Your task to perform on an android device: What's on my calendar today? Image 0: 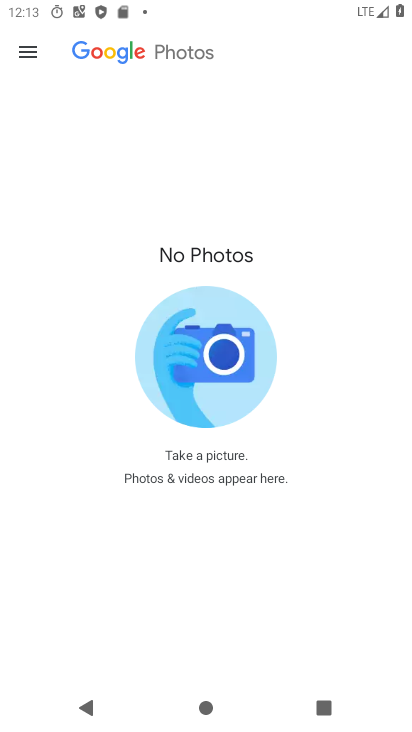
Step 0: press home button
Your task to perform on an android device: What's on my calendar today? Image 1: 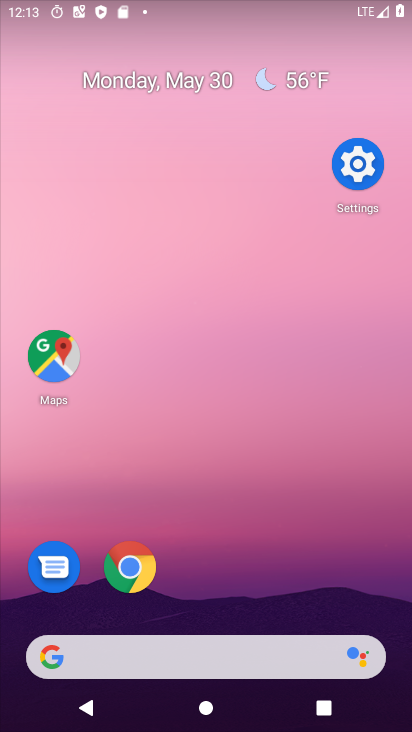
Step 1: drag from (362, 600) to (323, 187)
Your task to perform on an android device: What's on my calendar today? Image 2: 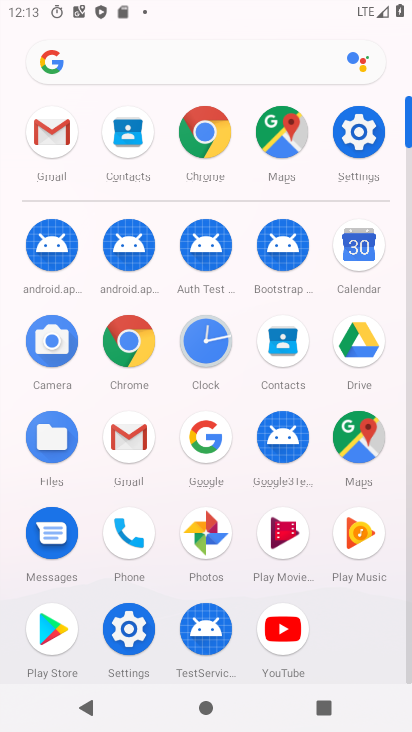
Step 2: click (350, 256)
Your task to perform on an android device: What's on my calendar today? Image 3: 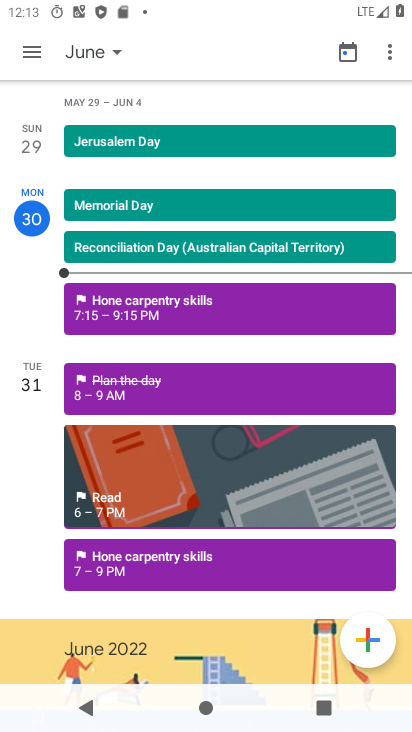
Step 3: click (80, 53)
Your task to perform on an android device: What's on my calendar today? Image 4: 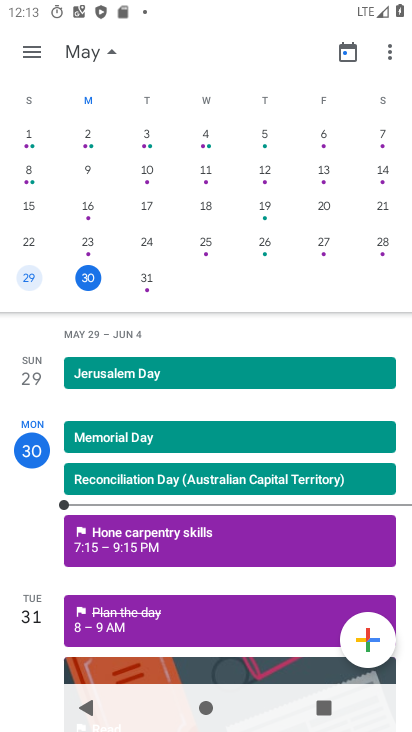
Step 4: click (34, 275)
Your task to perform on an android device: What's on my calendar today? Image 5: 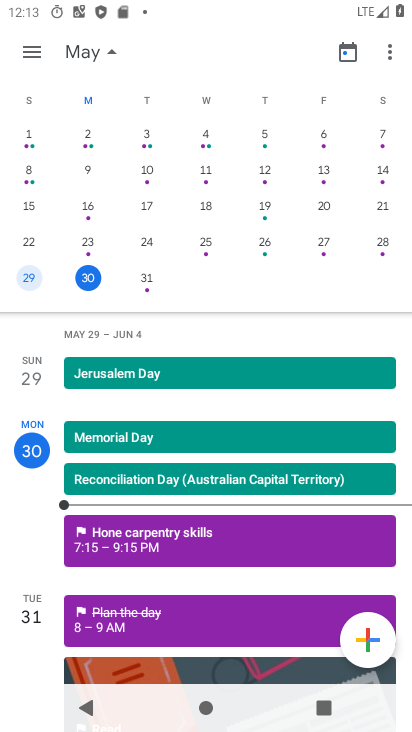
Step 5: click (35, 274)
Your task to perform on an android device: What's on my calendar today? Image 6: 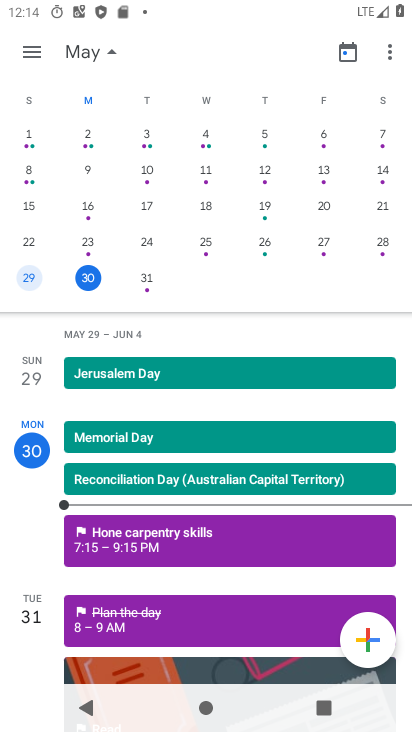
Step 6: click (30, 285)
Your task to perform on an android device: What's on my calendar today? Image 7: 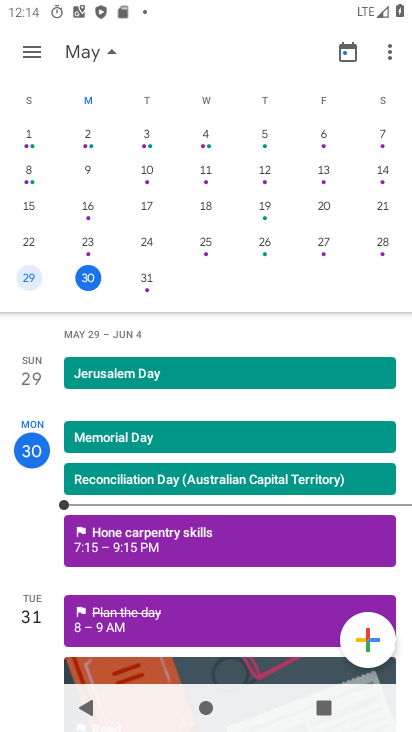
Step 7: click (20, 278)
Your task to perform on an android device: What's on my calendar today? Image 8: 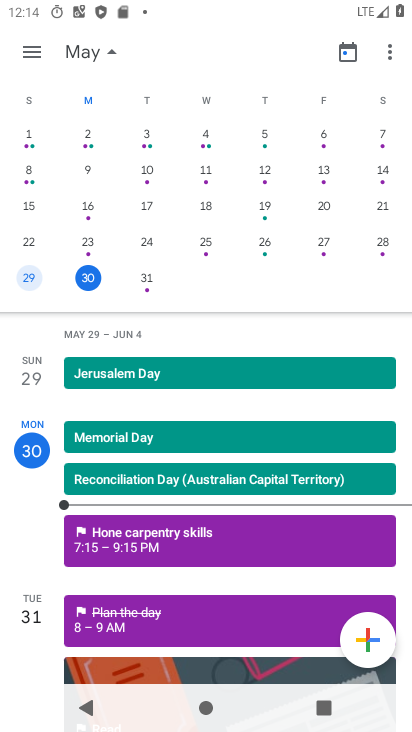
Step 8: click (31, 269)
Your task to perform on an android device: What's on my calendar today? Image 9: 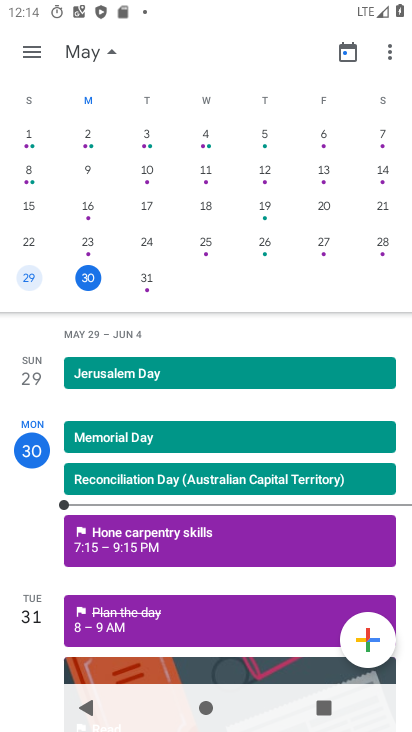
Step 9: click (25, 280)
Your task to perform on an android device: What's on my calendar today? Image 10: 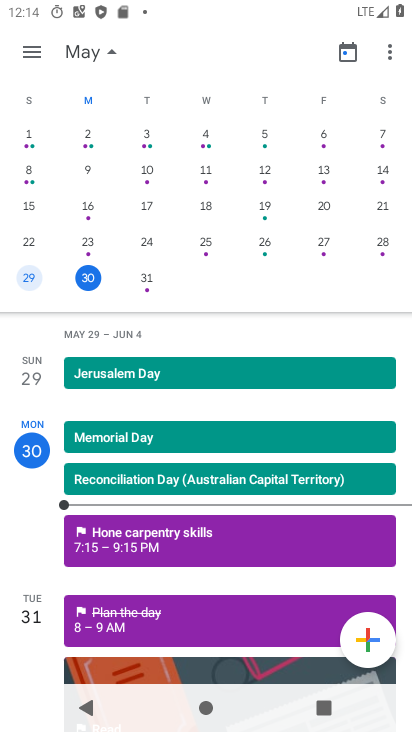
Step 10: click (39, 287)
Your task to perform on an android device: What's on my calendar today? Image 11: 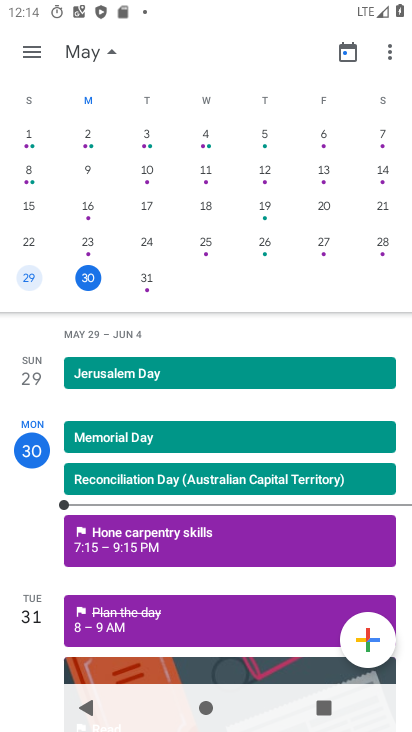
Step 11: click (84, 288)
Your task to perform on an android device: What's on my calendar today? Image 12: 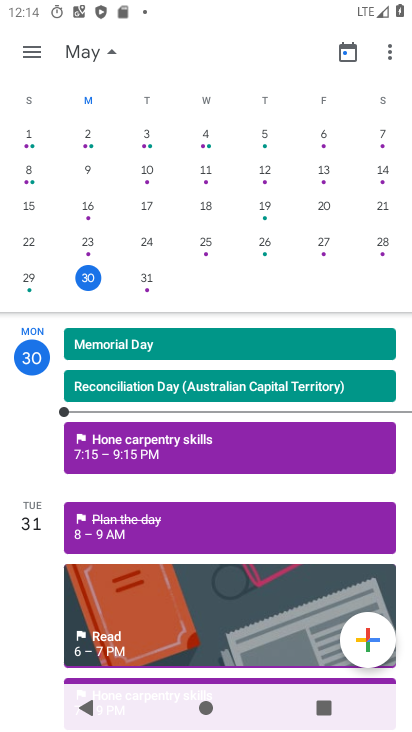
Step 12: task complete